Your task to perform on an android device: change the upload size in google photos Image 0: 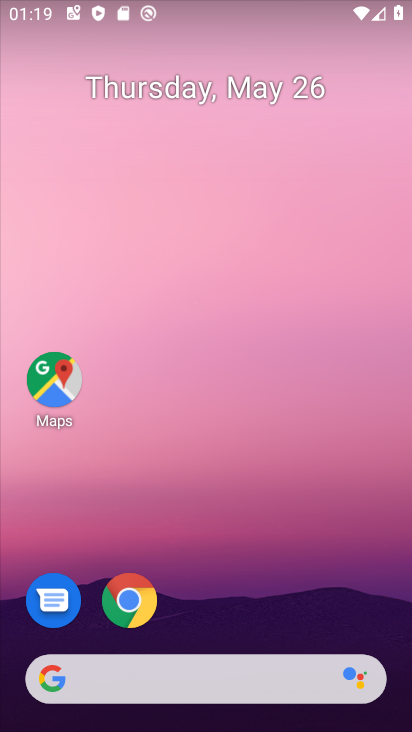
Step 0: drag from (312, 530) to (335, 2)
Your task to perform on an android device: change the upload size in google photos Image 1: 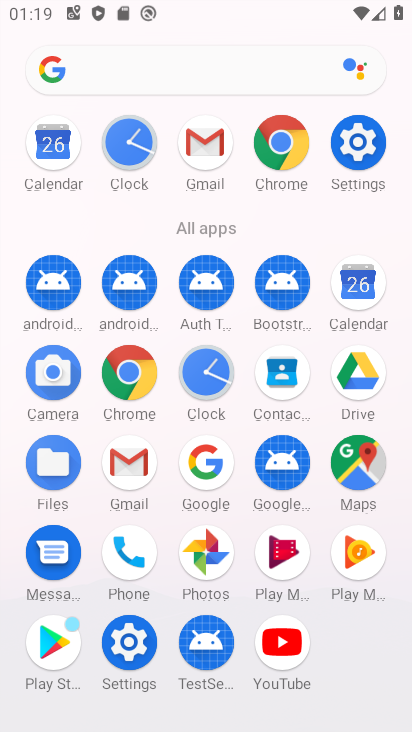
Step 1: click (199, 567)
Your task to perform on an android device: change the upload size in google photos Image 2: 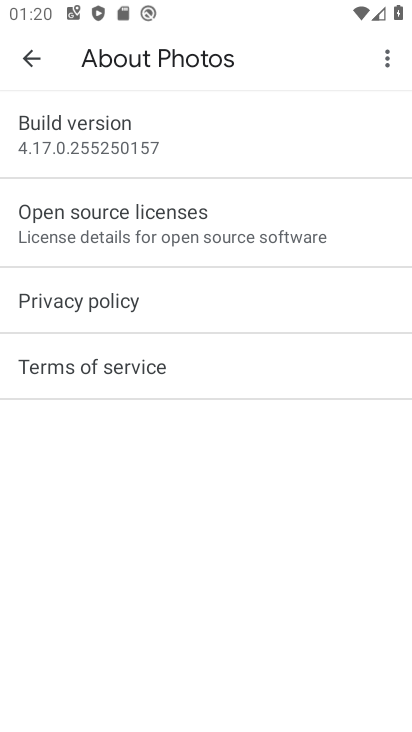
Step 2: click (31, 66)
Your task to perform on an android device: change the upload size in google photos Image 3: 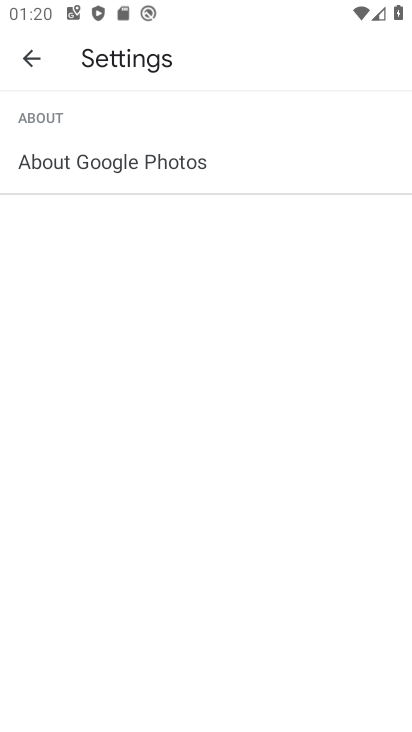
Step 3: click (20, 62)
Your task to perform on an android device: change the upload size in google photos Image 4: 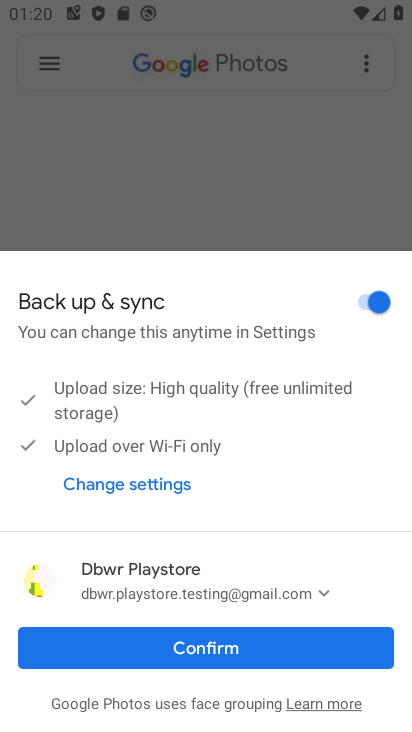
Step 4: click (179, 644)
Your task to perform on an android device: change the upload size in google photos Image 5: 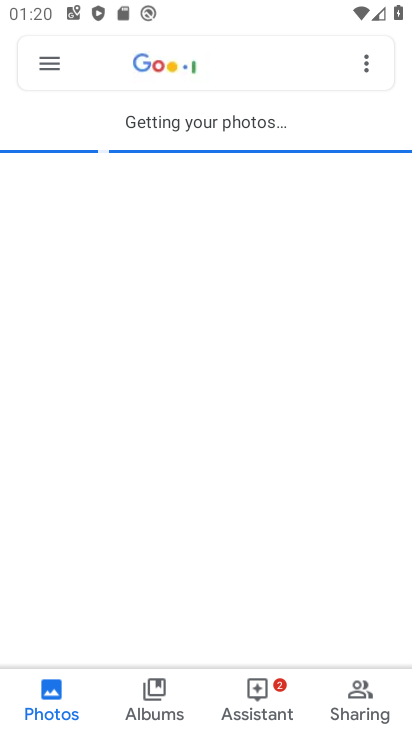
Step 5: click (47, 72)
Your task to perform on an android device: change the upload size in google photos Image 6: 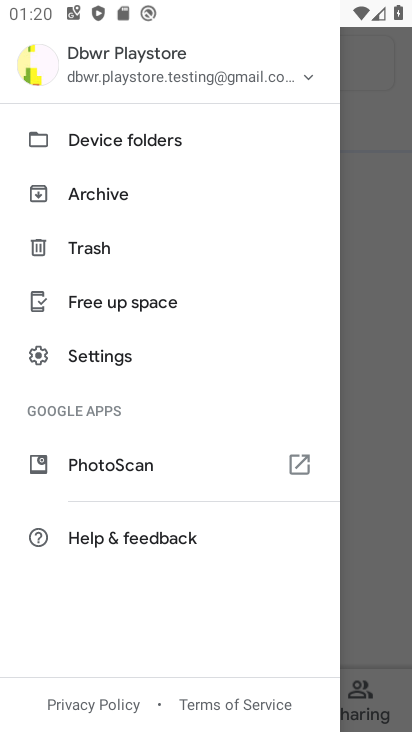
Step 6: click (99, 344)
Your task to perform on an android device: change the upload size in google photos Image 7: 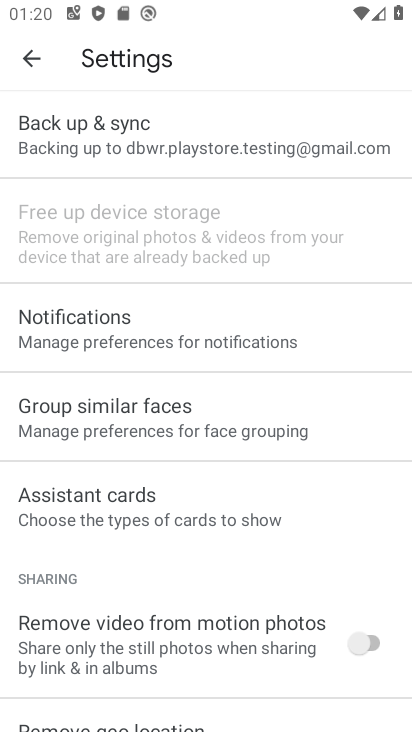
Step 7: drag from (78, 538) to (119, 199)
Your task to perform on an android device: change the upload size in google photos Image 8: 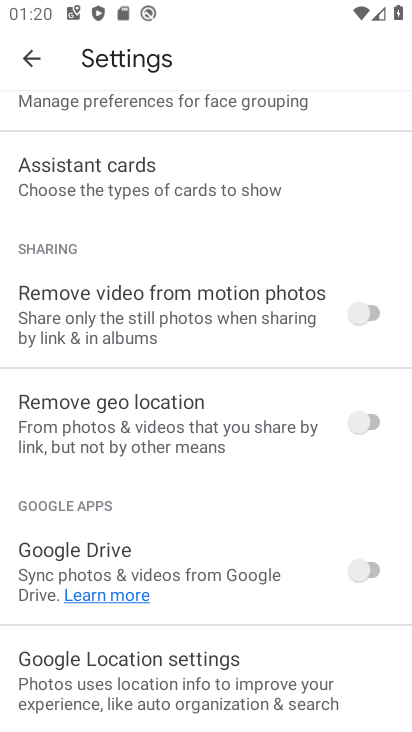
Step 8: drag from (61, 591) to (110, 283)
Your task to perform on an android device: change the upload size in google photos Image 9: 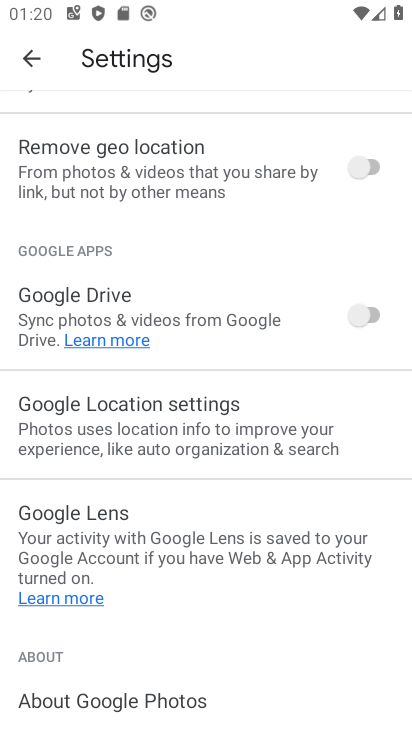
Step 9: drag from (168, 576) to (204, 401)
Your task to perform on an android device: change the upload size in google photos Image 10: 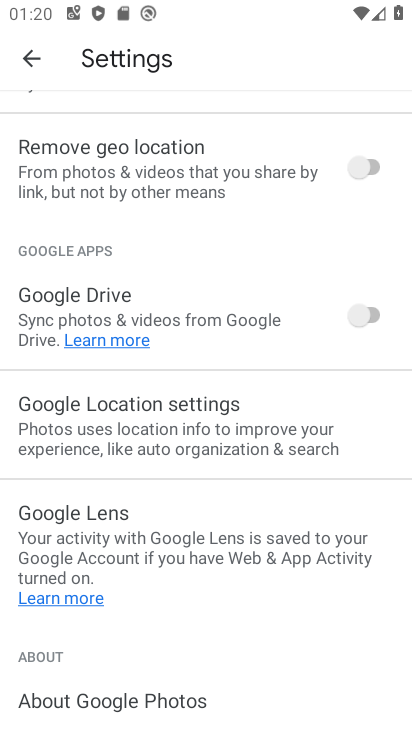
Step 10: click (186, 702)
Your task to perform on an android device: change the upload size in google photos Image 11: 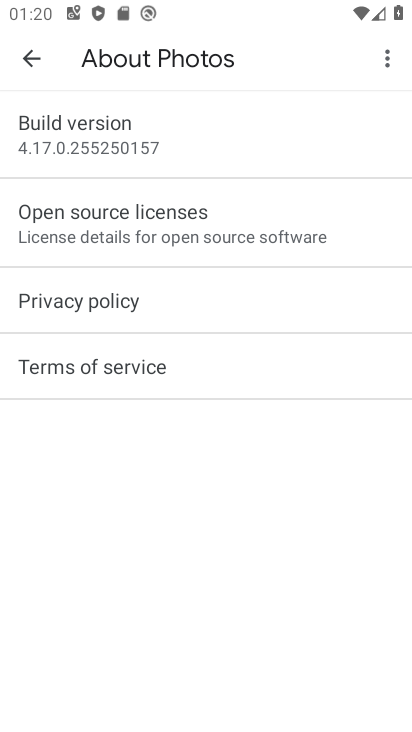
Step 11: task complete